Your task to perform on an android device: Turn off the flashlight Image 0: 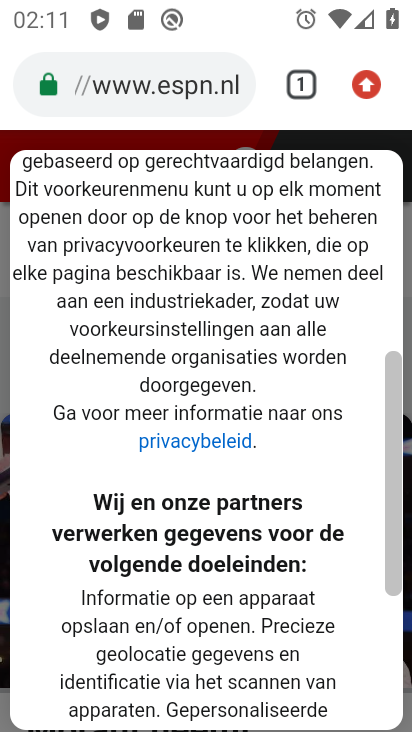
Step 0: press home button
Your task to perform on an android device: Turn off the flashlight Image 1: 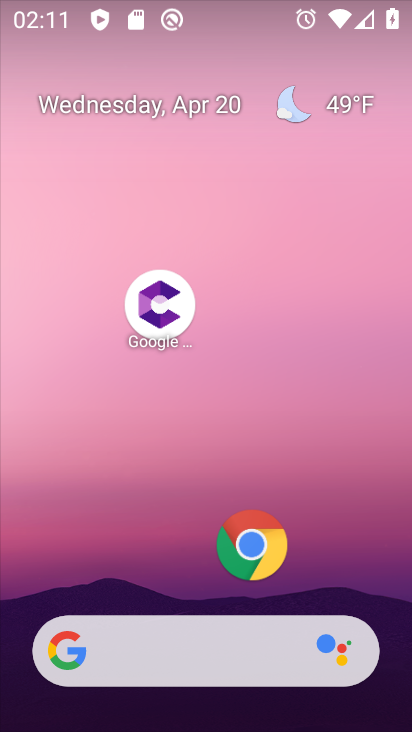
Step 1: drag from (141, 546) to (222, 53)
Your task to perform on an android device: Turn off the flashlight Image 2: 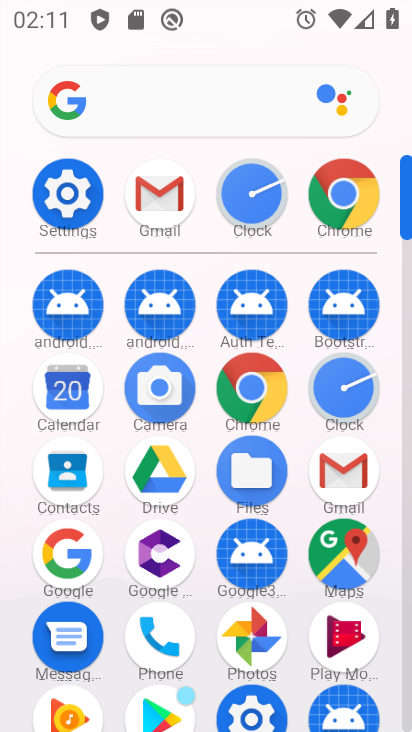
Step 2: click (65, 193)
Your task to perform on an android device: Turn off the flashlight Image 3: 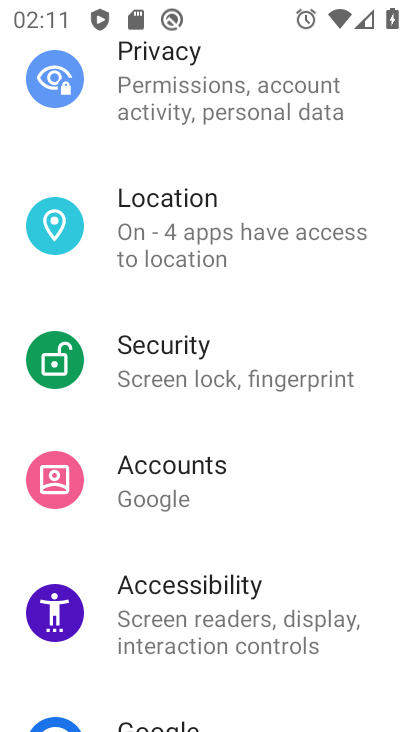
Step 3: click (213, 588)
Your task to perform on an android device: Turn off the flashlight Image 4: 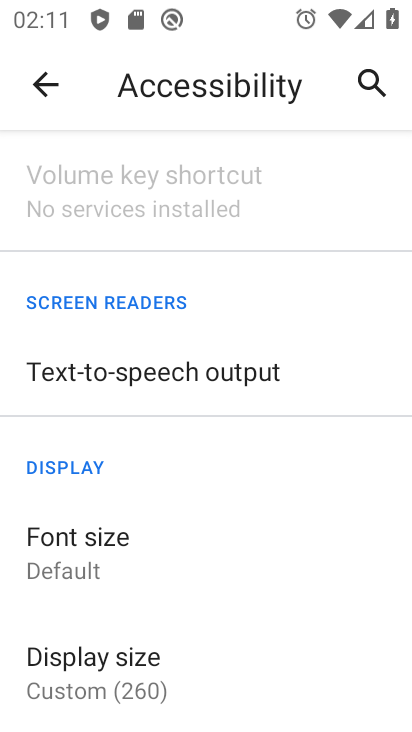
Step 4: drag from (167, 539) to (203, 438)
Your task to perform on an android device: Turn off the flashlight Image 5: 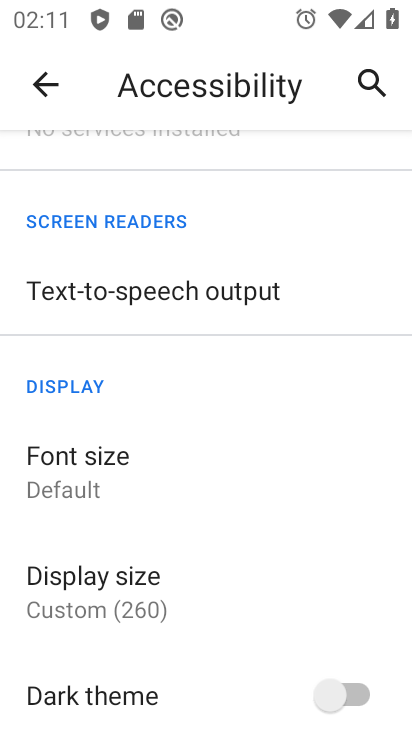
Step 5: drag from (188, 517) to (224, 419)
Your task to perform on an android device: Turn off the flashlight Image 6: 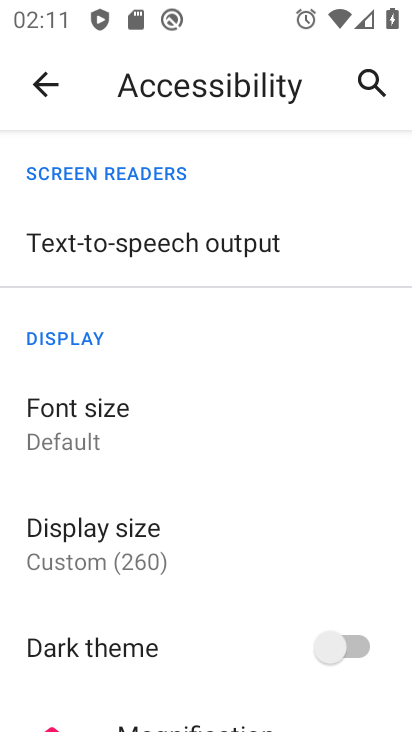
Step 6: drag from (197, 504) to (243, 409)
Your task to perform on an android device: Turn off the flashlight Image 7: 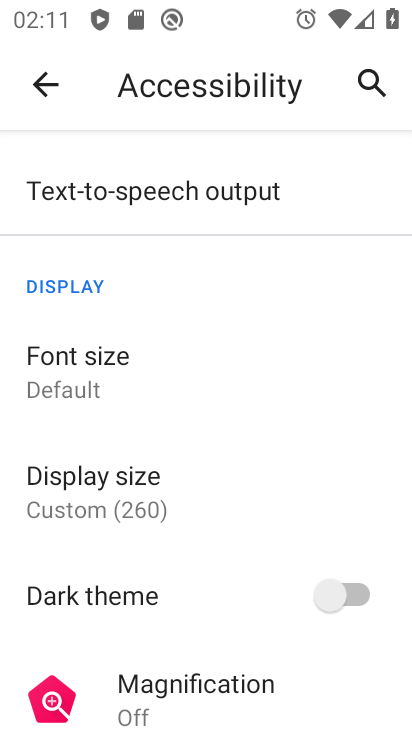
Step 7: drag from (179, 546) to (249, 409)
Your task to perform on an android device: Turn off the flashlight Image 8: 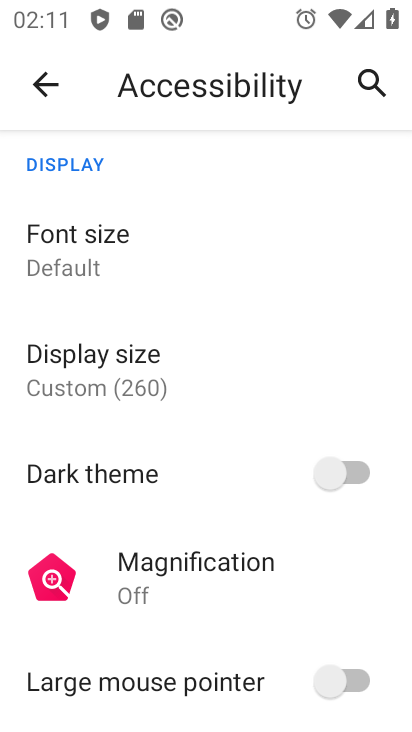
Step 8: drag from (188, 639) to (213, 433)
Your task to perform on an android device: Turn off the flashlight Image 9: 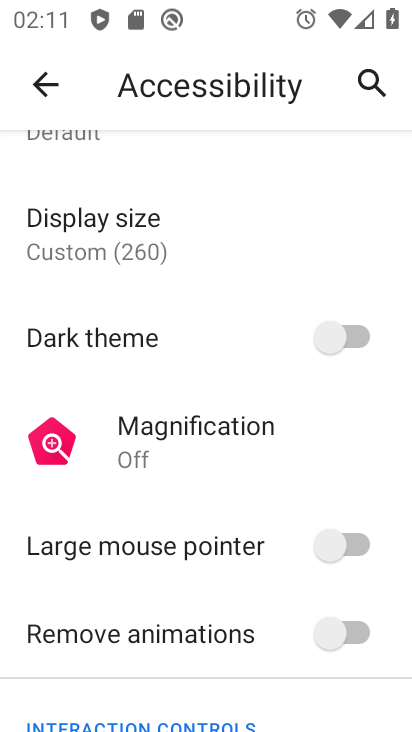
Step 9: drag from (199, 580) to (224, 437)
Your task to perform on an android device: Turn off the flashlight Image 10: 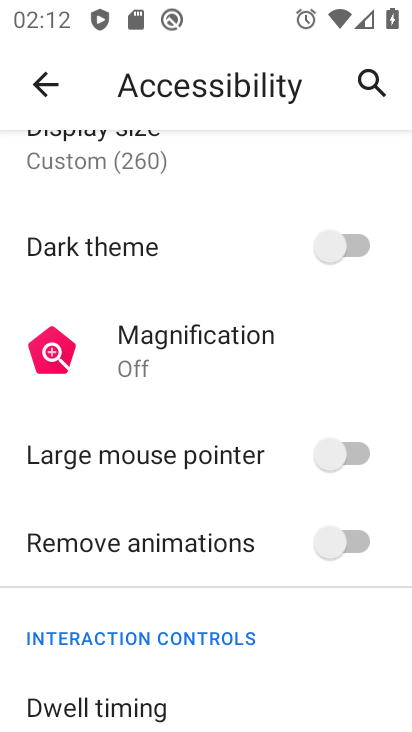
Step 10: drag from (194, 525) to (234, 406)
Your task to perform on an android device: Turn off the flashlight Image 11: 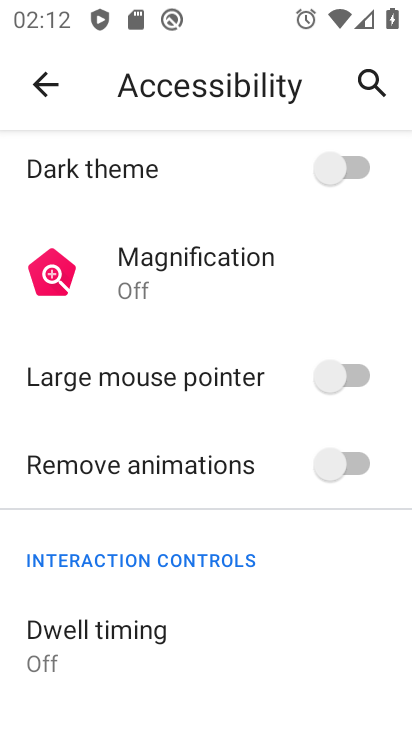
Step 11: drag from (196, 599) to (229, 450)
Your task to perform on an android device: Turn off the flashlight Image 12: 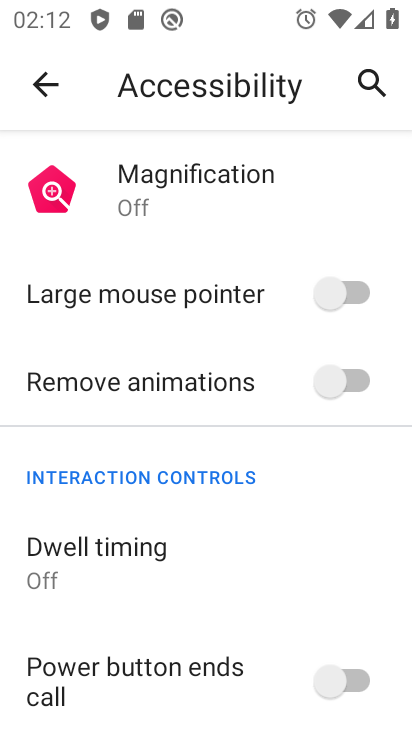
Step 12: drag from (148, 581) to (220, 365)
Your task to perform on an android device: Turn off the flashlight Image 13: 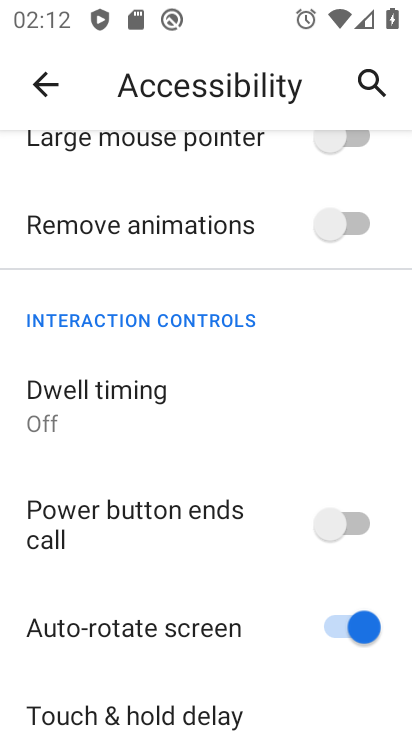
Step 13: drag from (154, 575) to (221, 409)
Your task to perform on an android device: Turn off the flashlight Image 14: 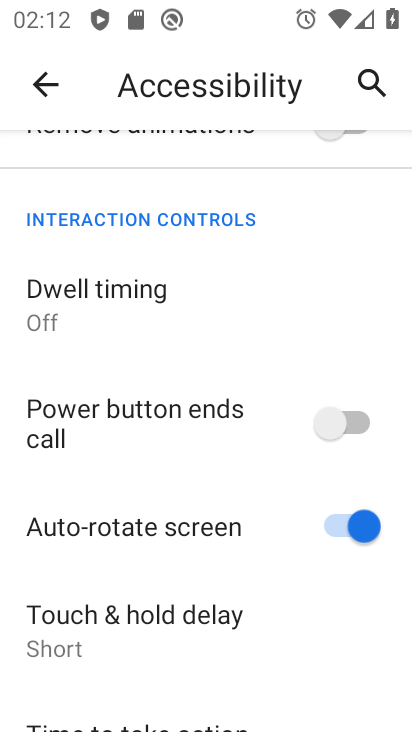
Step 14: drag from (177, 660) to (228, 430)
Your task to perform on an android device: Turn off the flashlight Image 15: 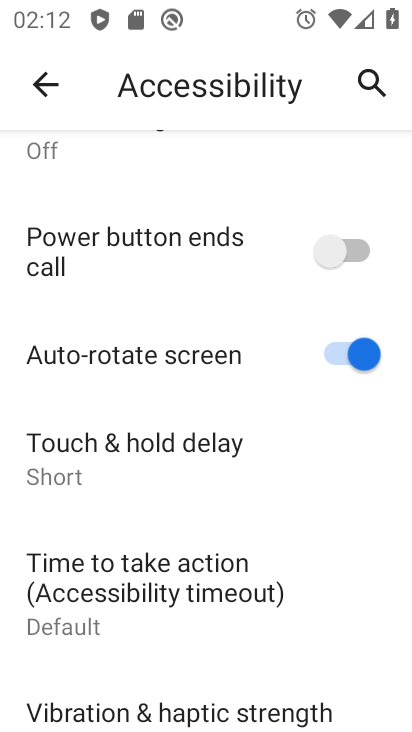
Step 15: drag from (162, 637) to (227, 427)
Your task to perform on an android device: Turn off the flashlight Image 16: 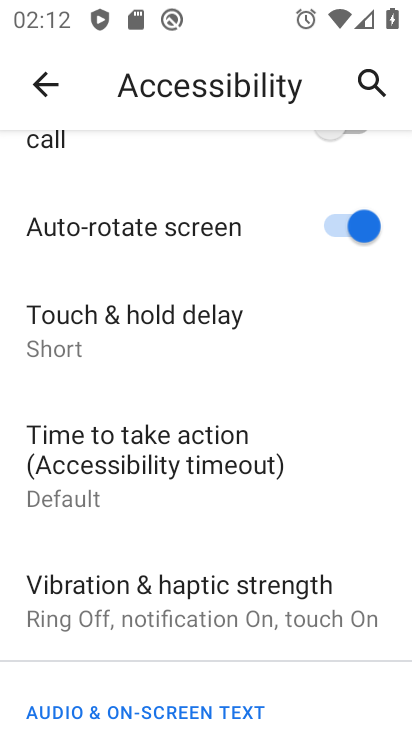
Step 16: press back button
Your task to perform on an android device: Turn off the flashlight Image 17: 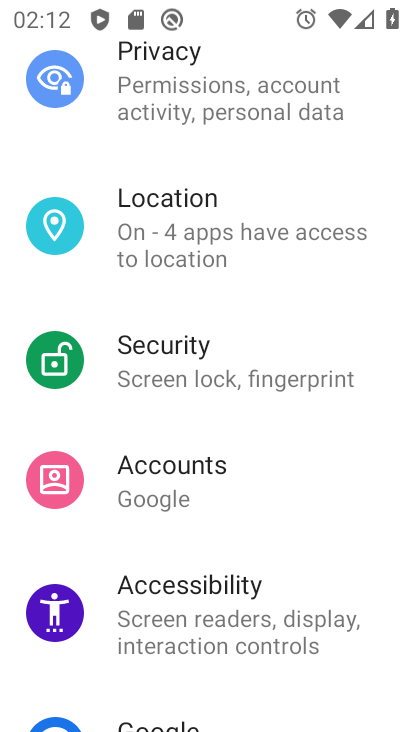
Step 17: drag from (288, 205) to (292, 355)
Your task to perform on an android device: Turn off the flashlight Image 18: 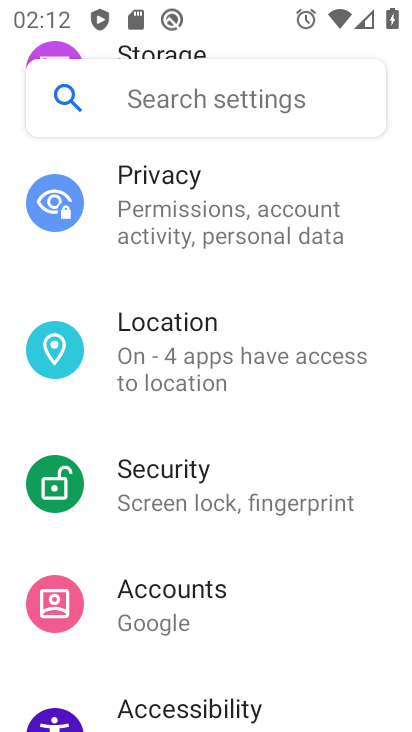
Step 18: drag from (283, 162) to (290, 327)
Your task to perform on an android device: Turn off the flashlight Image 19: 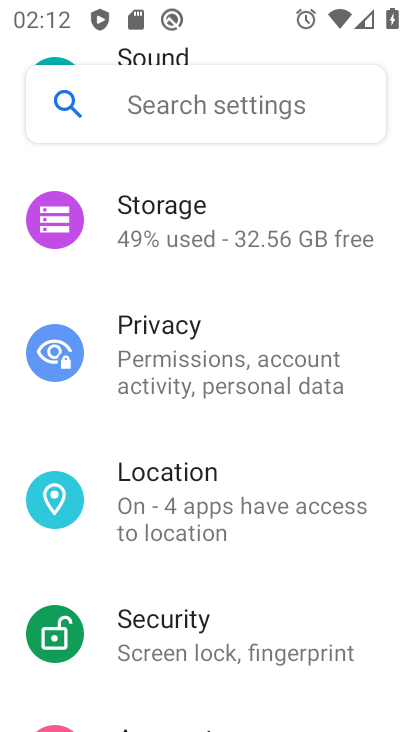
Step 19: drag from (273, 213) to (266, 365)
Your task to perform on an android device: Turn off the flashlight Image 20: 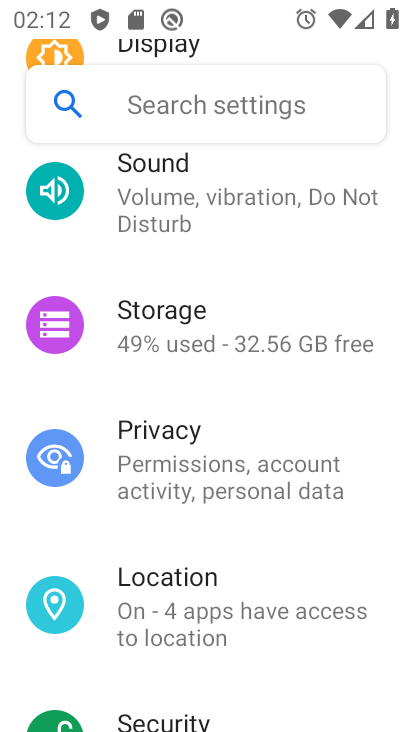
Step 20: drag from (254, 302) to (277, 405)
Your task to perform on an android device: Turn off the flashlight Image 21: 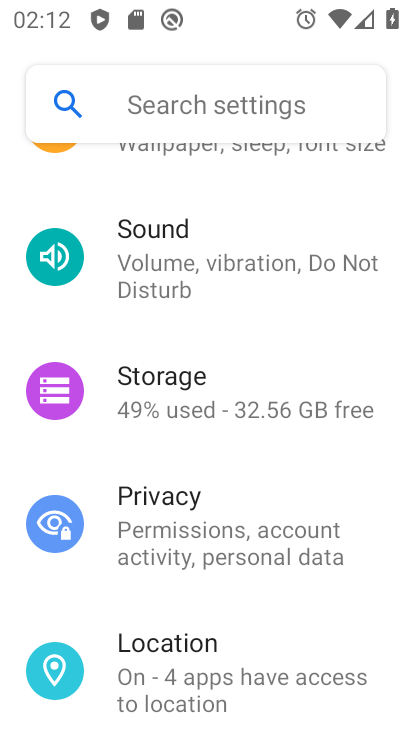
Step 21: drag from (266, 219) to (292, 448)
Your task to perform on an android device: Turn off the flashlight Image 22: 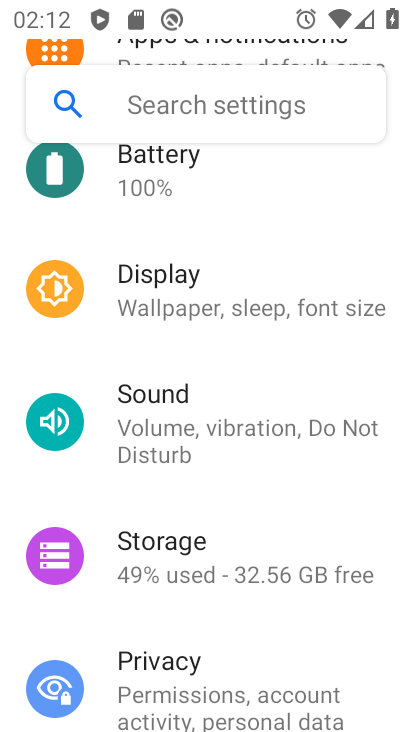
Step 22: click (319, 308)
Your task to perform on an android device: Turn off the flashlight Image 23: 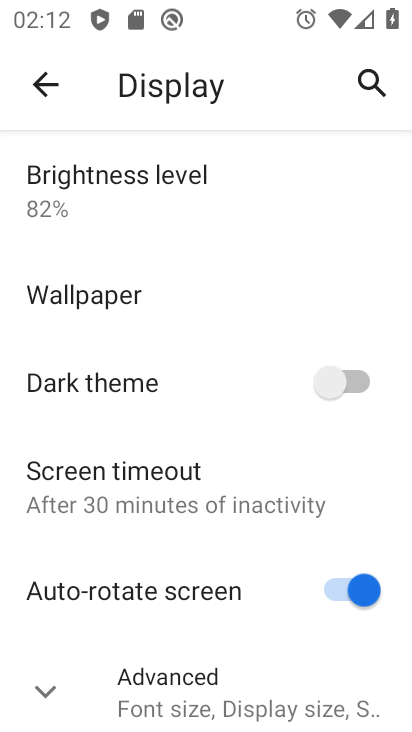
Step 23: drag from (183, 570) to (226, 371)
Your task to perform on an android device: Turn off the flashlight Image 24: 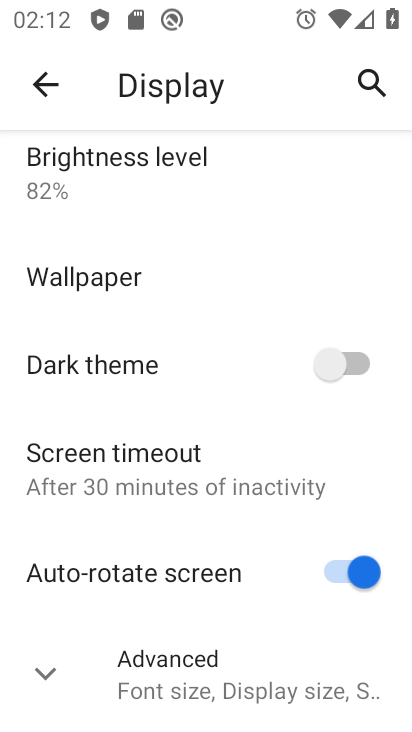
Step 24: click (217, 686)
Your task to perform on an android device: Turn off the flashlight Image 25: 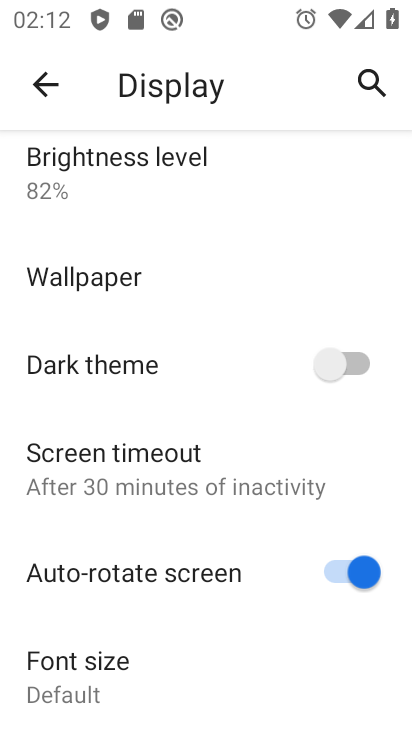
Step 25: task complete